Your task to perform on an android device: Open Google Chrome Image 0: 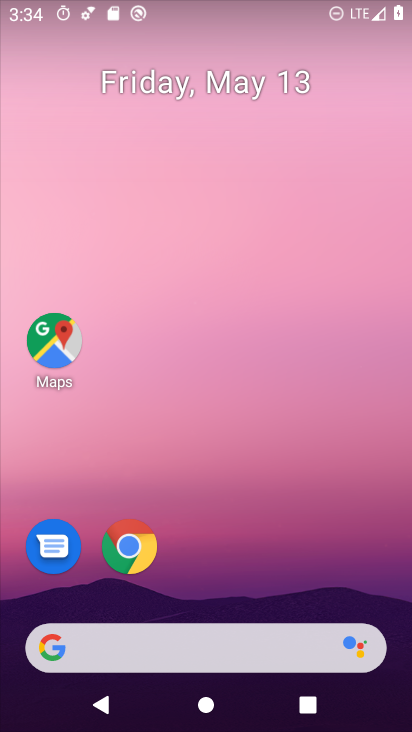
Step 0: click (134, 554)
Your task to perform on an android device: Open Google Chrome Image 1: 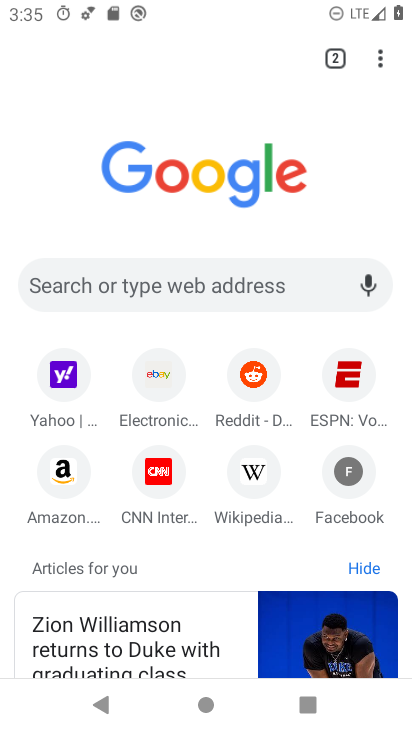
Step 1: task complete